Your task to perform on an android device: install app "Gmail" Image 0: 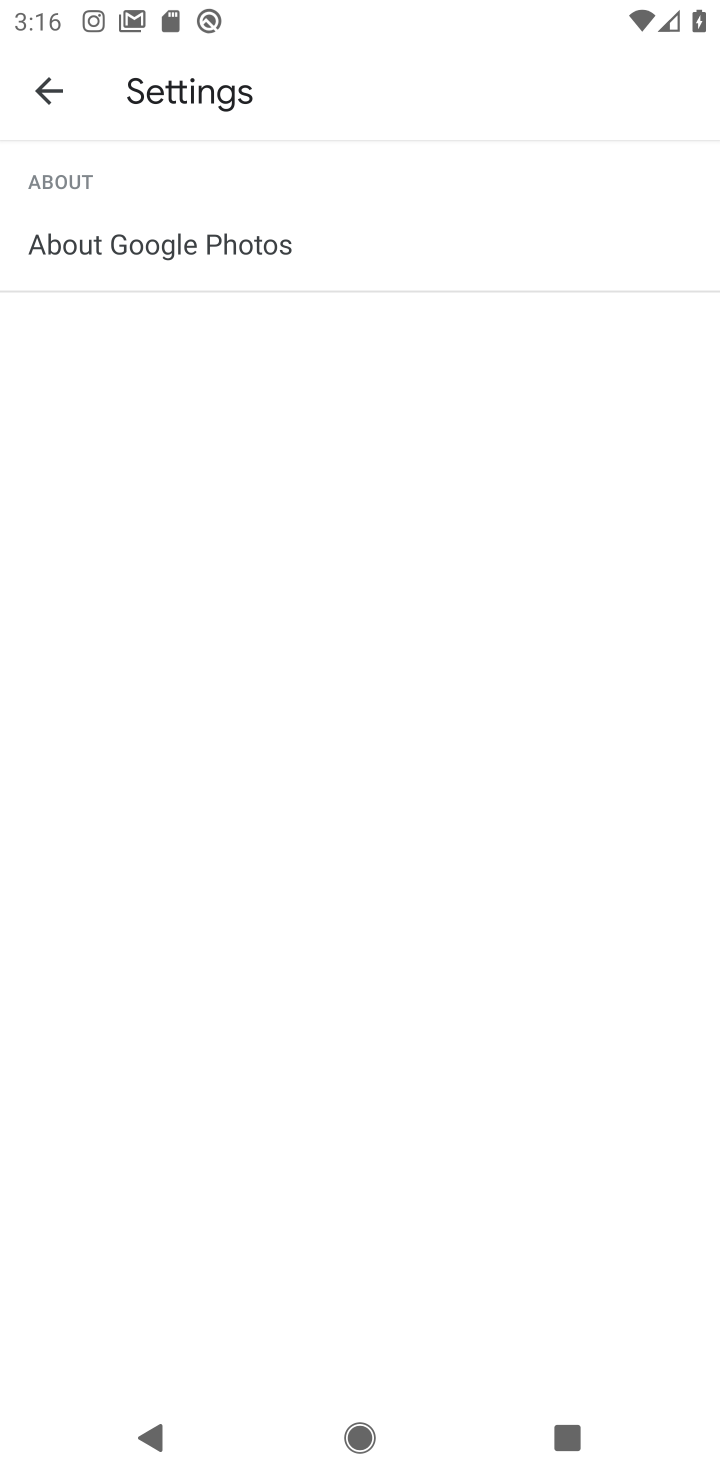
Step 0: press back button
Your task to perform on an android device: install app "Gmail" Image 1: 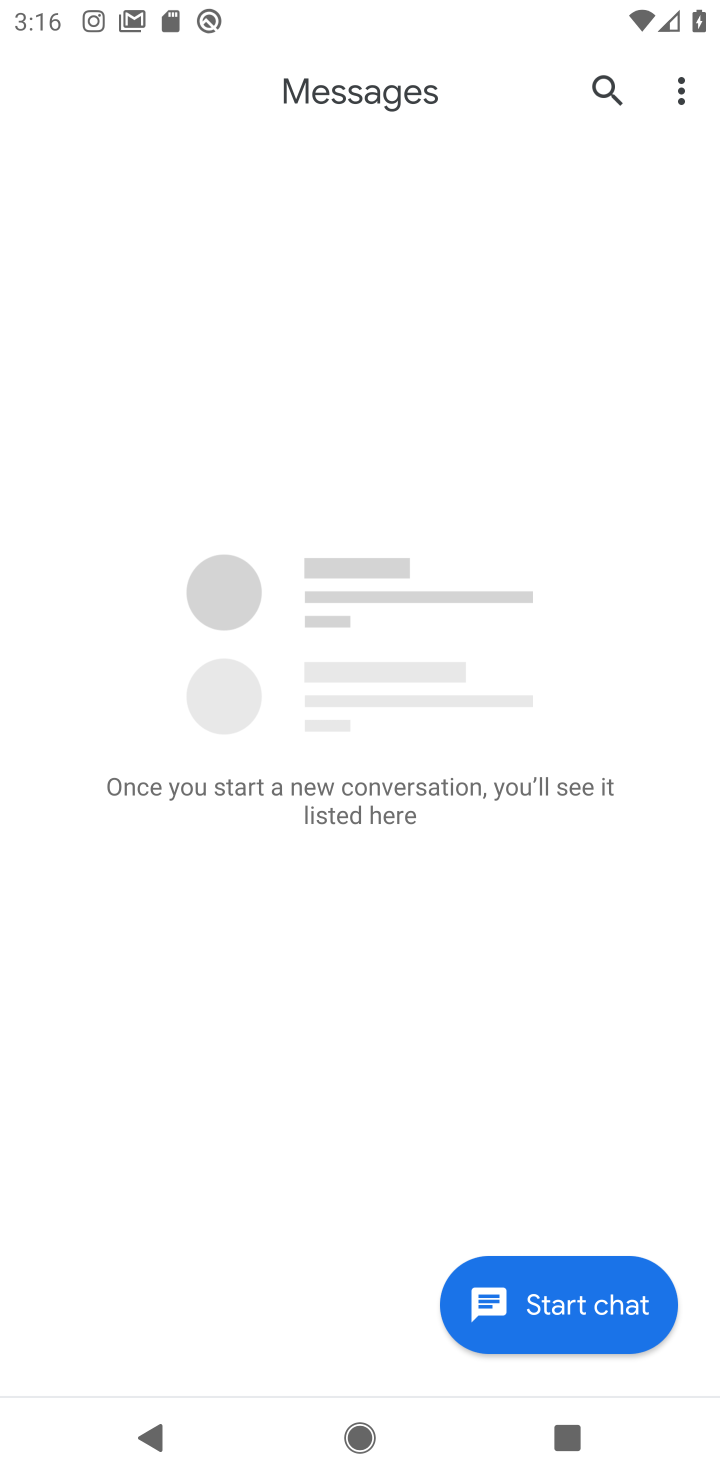
Step 1: press back button
Your task to perform on an android device: install app "Gmail" Image 2: 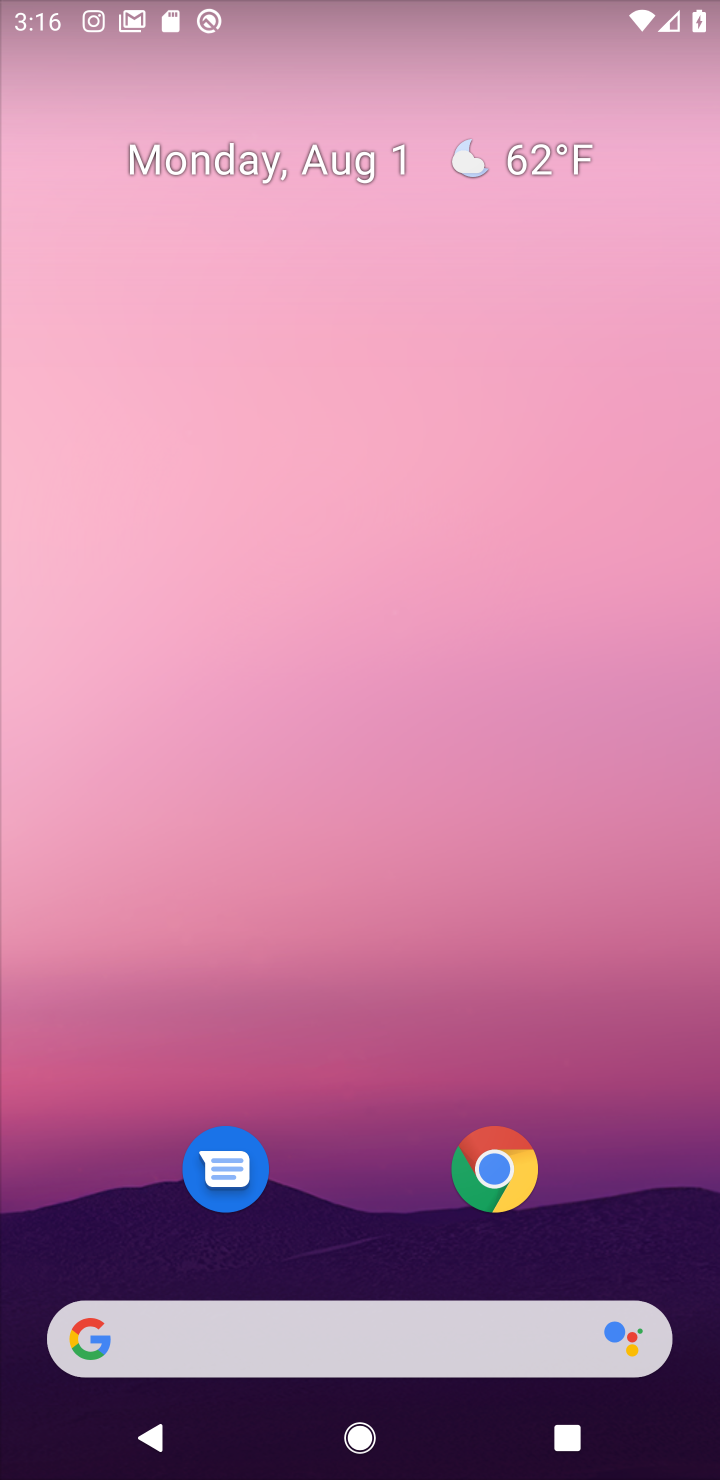
Step 2: press back button
Your task to perform on an android device: install app "Gmail" Image 3: 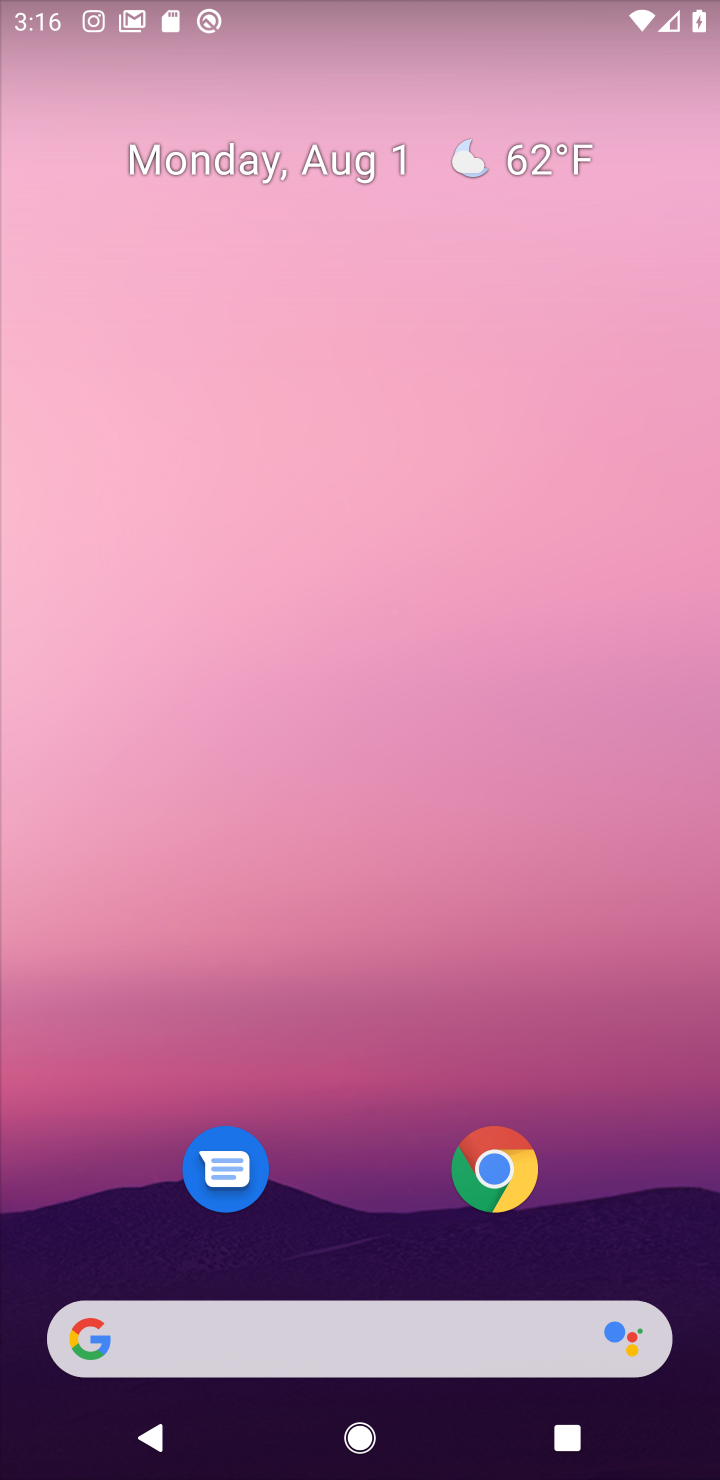
Step 3: drag from (336, 1178) to (395, 139)
Your task to perform on an android device: install app "Gmail" Image 4: 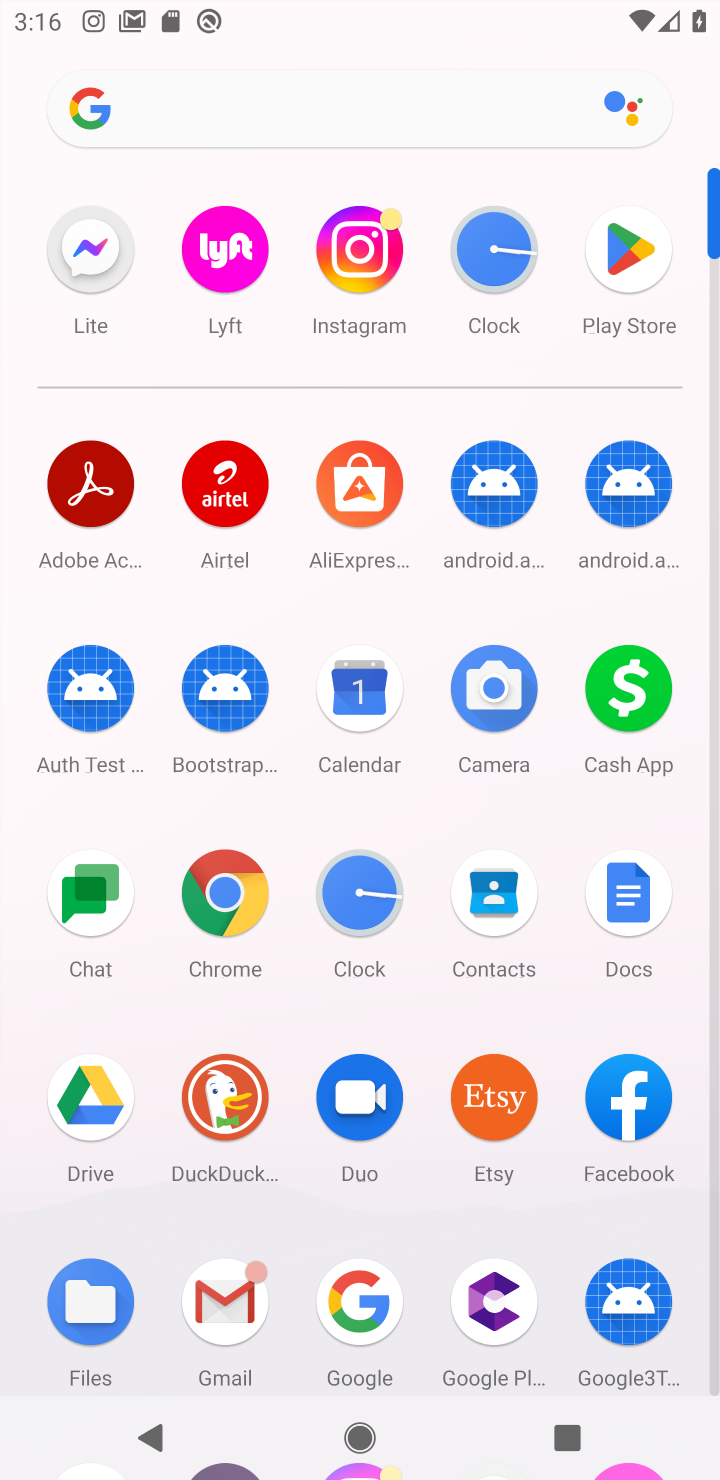
Step 4: click (600, 324)
Your task to perform on an android device: install app "Gmail" Image 5: 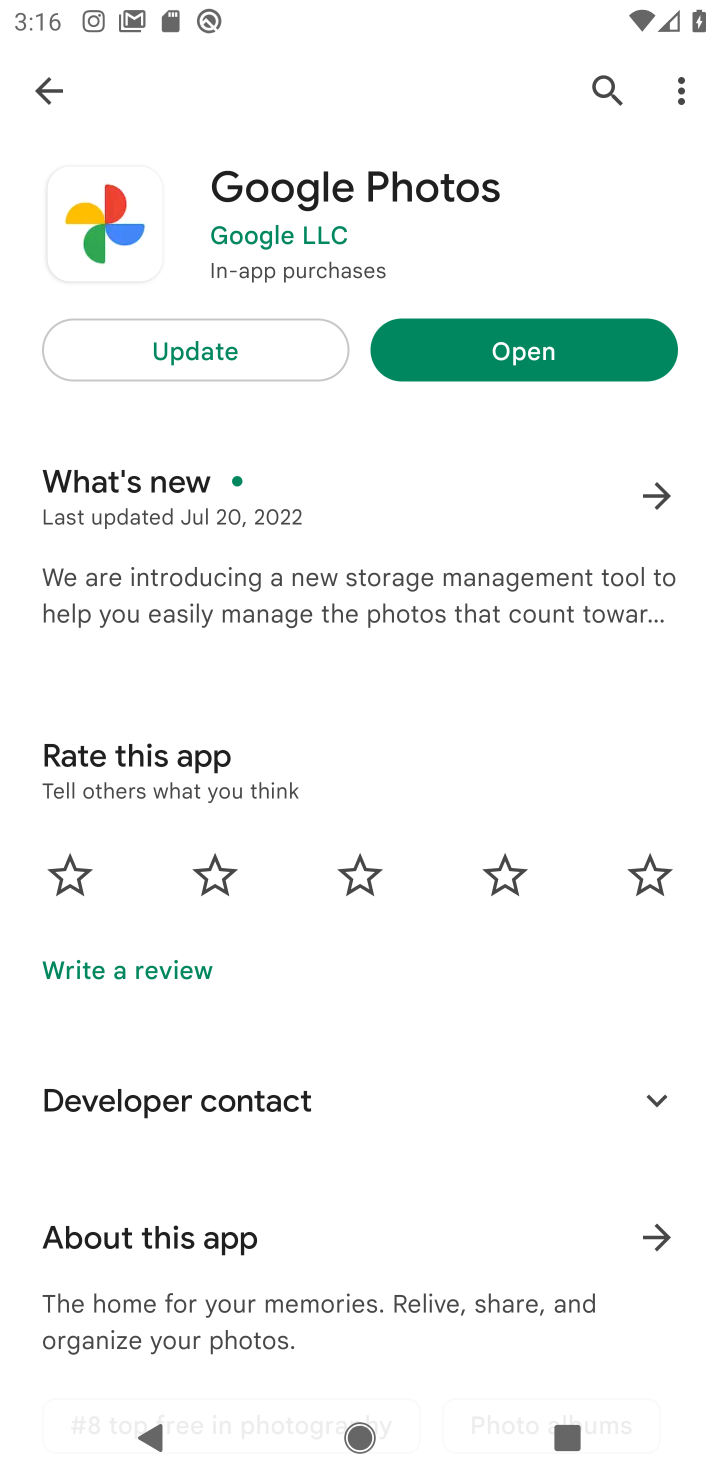
Step 5: click (36, 84)
Your task to perform on an android device: install app "Gmail" Image 6: 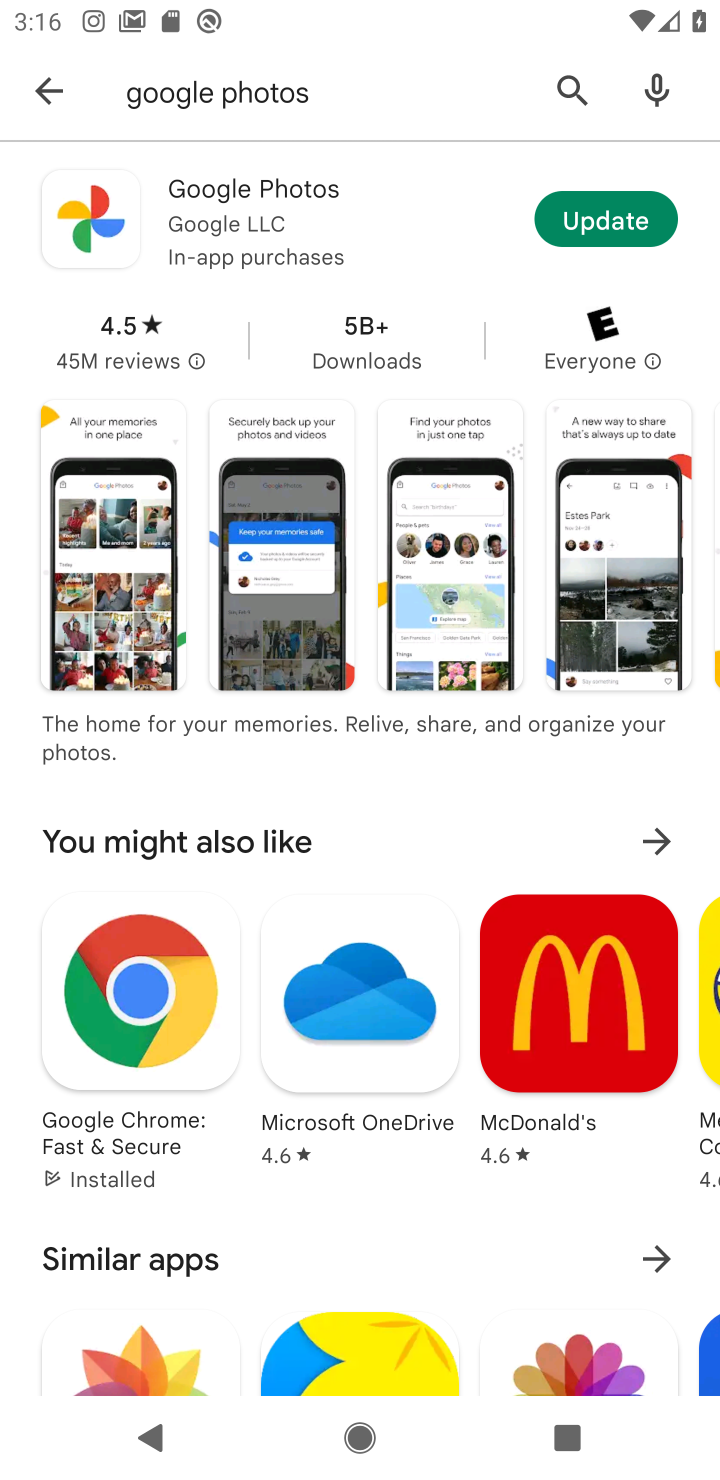
Step 6: click (41, 94)
Your task to perform on an android device: install app "Gmail" Image 7: 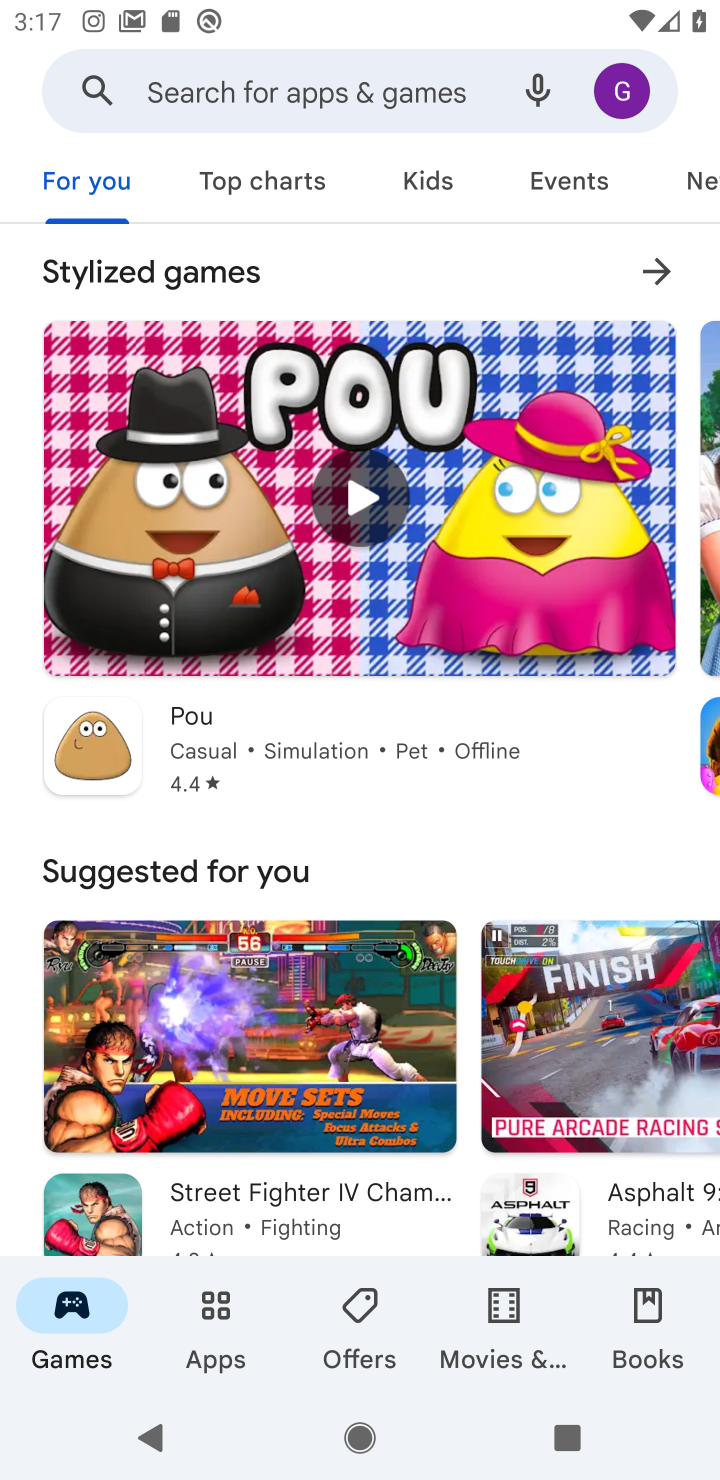
Step 7: click (279, 94)
Your task to perform on an android device: install app "Gmail" Image 8: 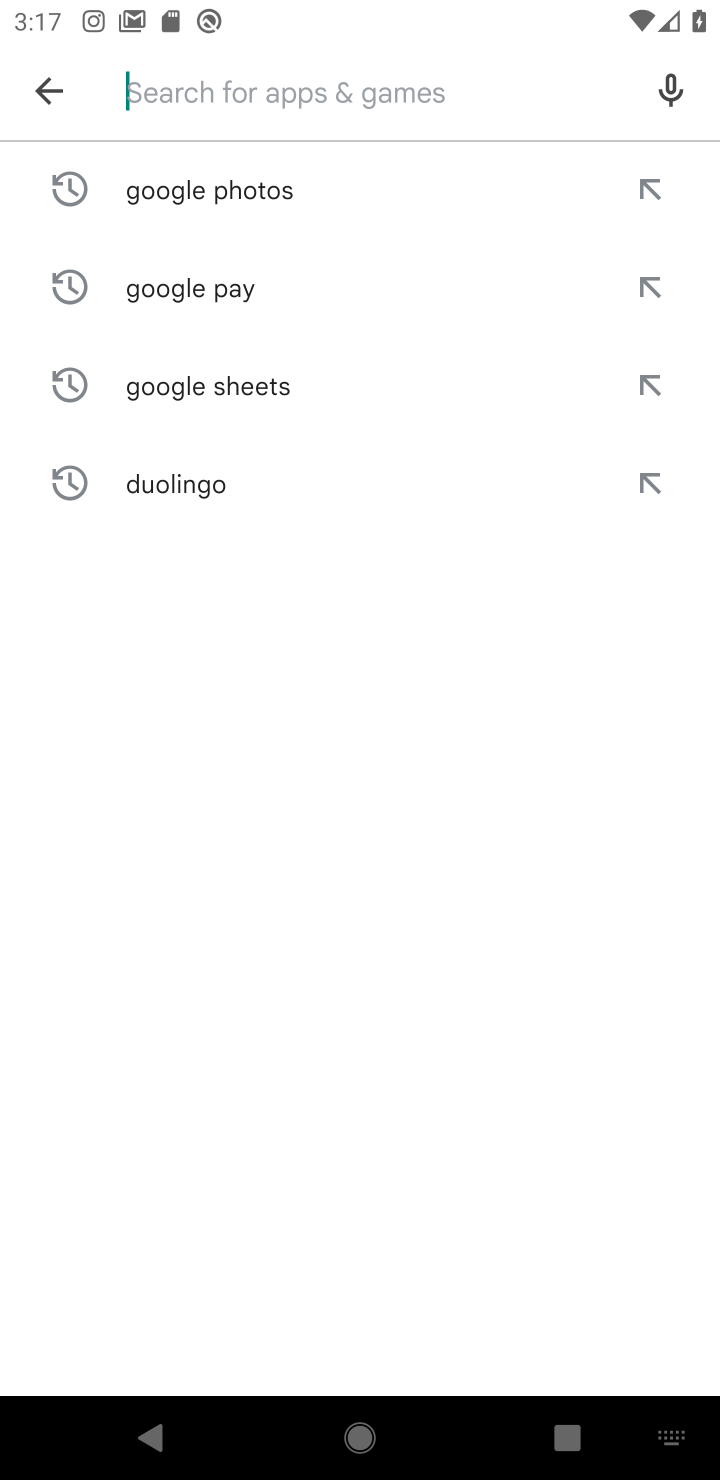
Step 8: type "Gmail"
Your task to perform on an android device: install app "Gmail" Image 9: 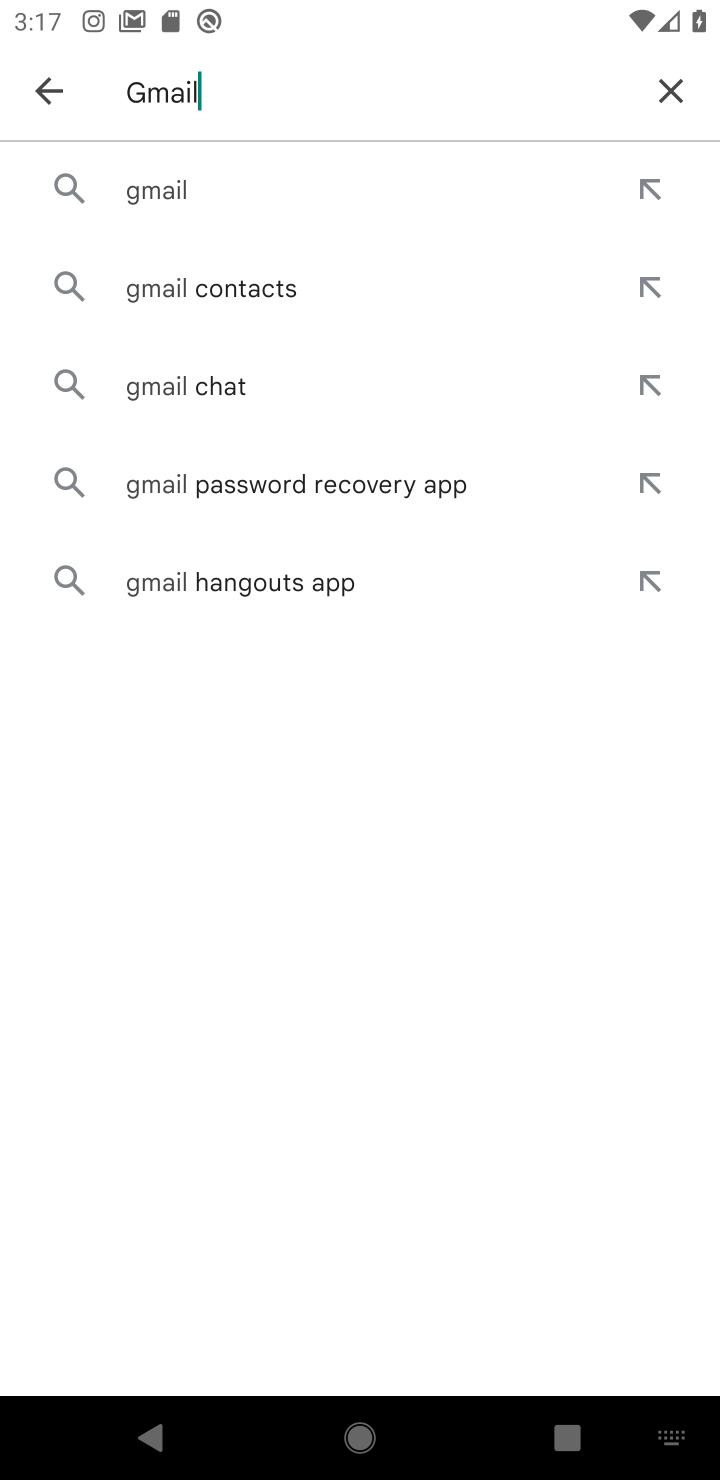
Step 9: click (159, 187)
Your task to perform on an android device: install app "Gmail" Image 10: 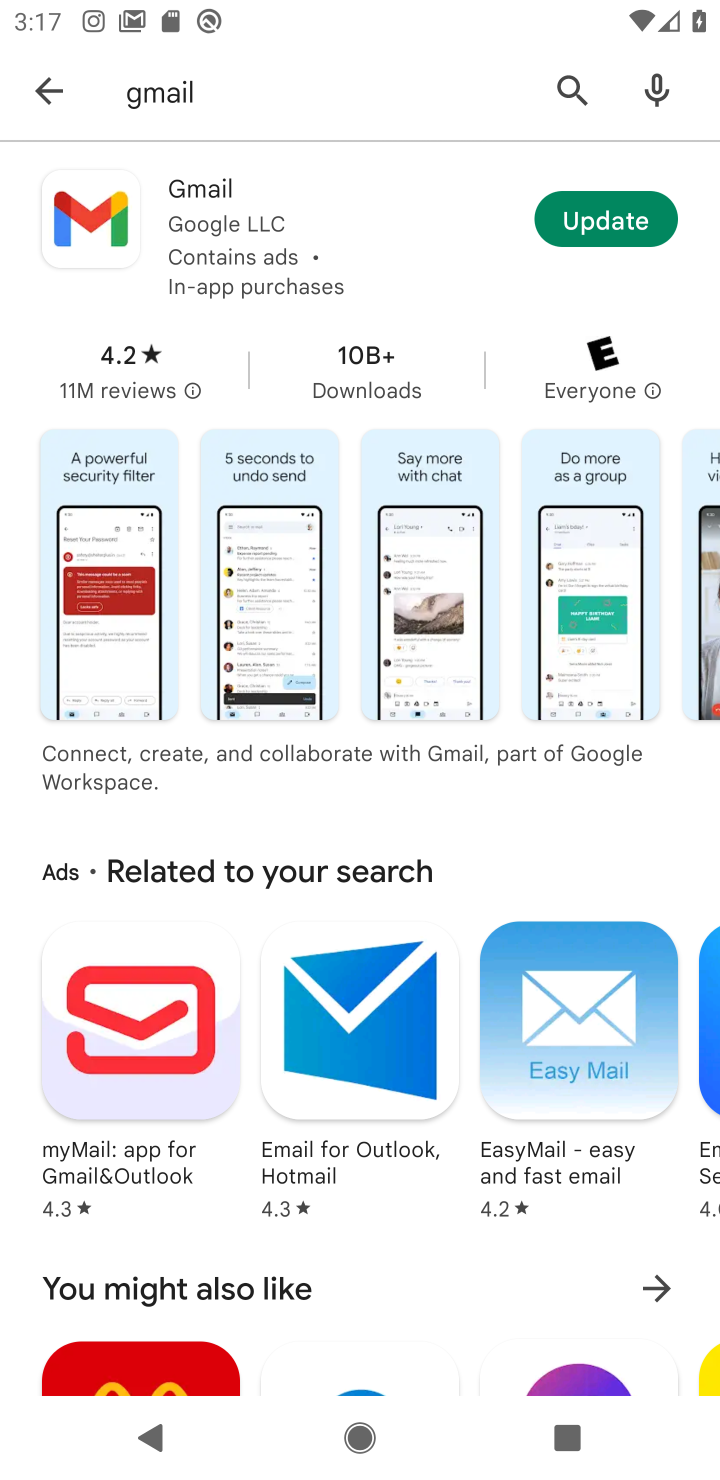
Step 10: task complete